Your task to perform on an android device: stop showing notifications on the lock screen Image 0: 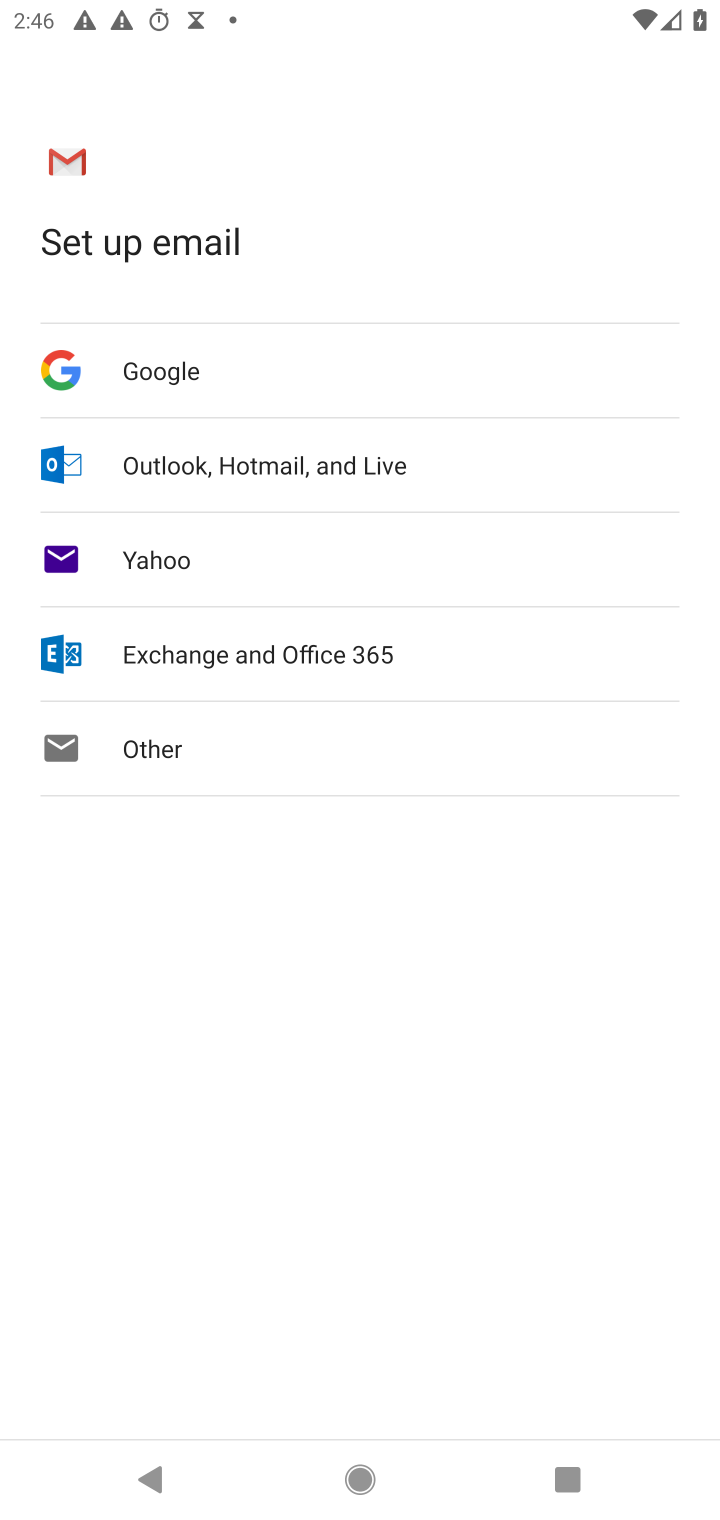
Step 0: press home button
Your task to perform on an android device: stop showing notifications on the lock screen Image 1: 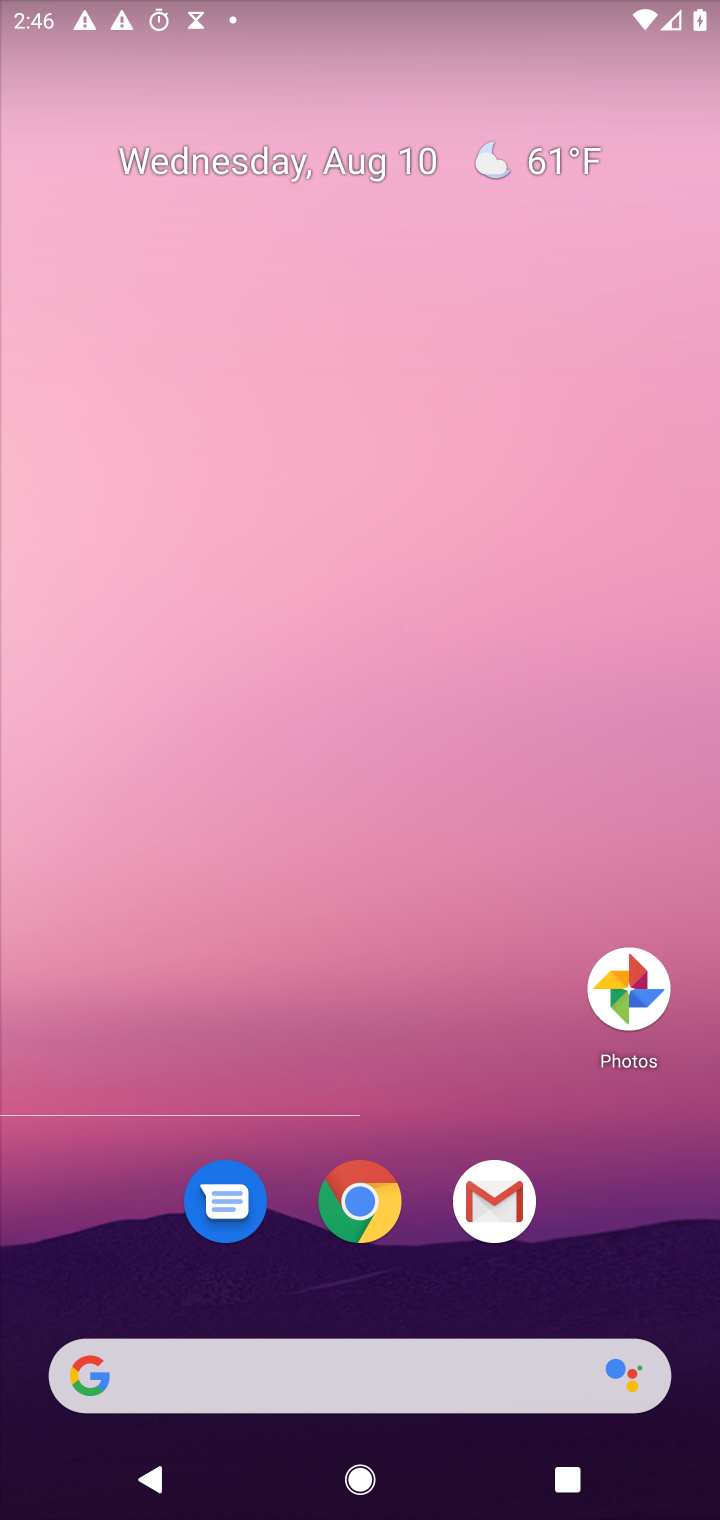
Step 1: drag from (418, 1190) to (515, 459)
Your task to perform on an android device: stop showing notifications on the lock screen Image 2: 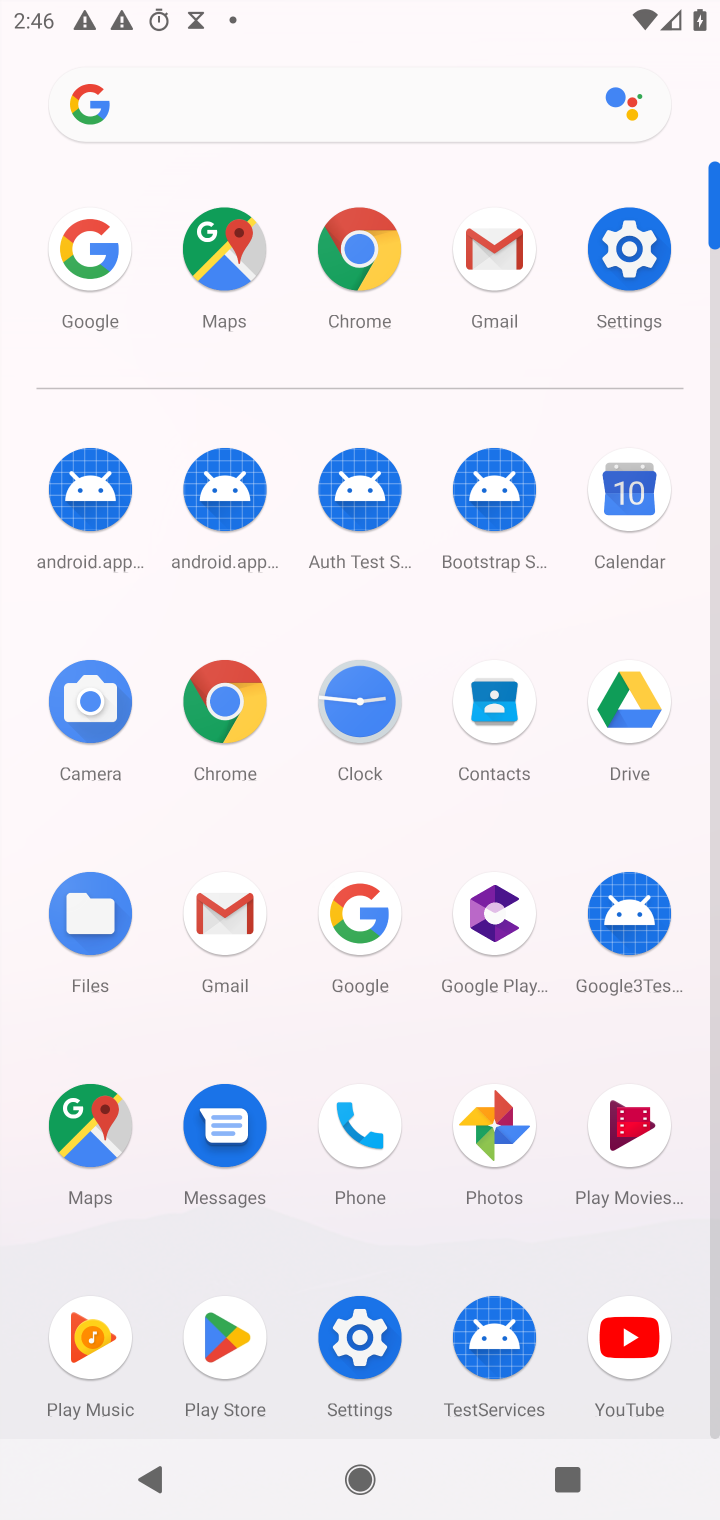
Step 2: click (631, 248)
Your task to perform on an android device: stop showing notifications on the lock screen Image 3: 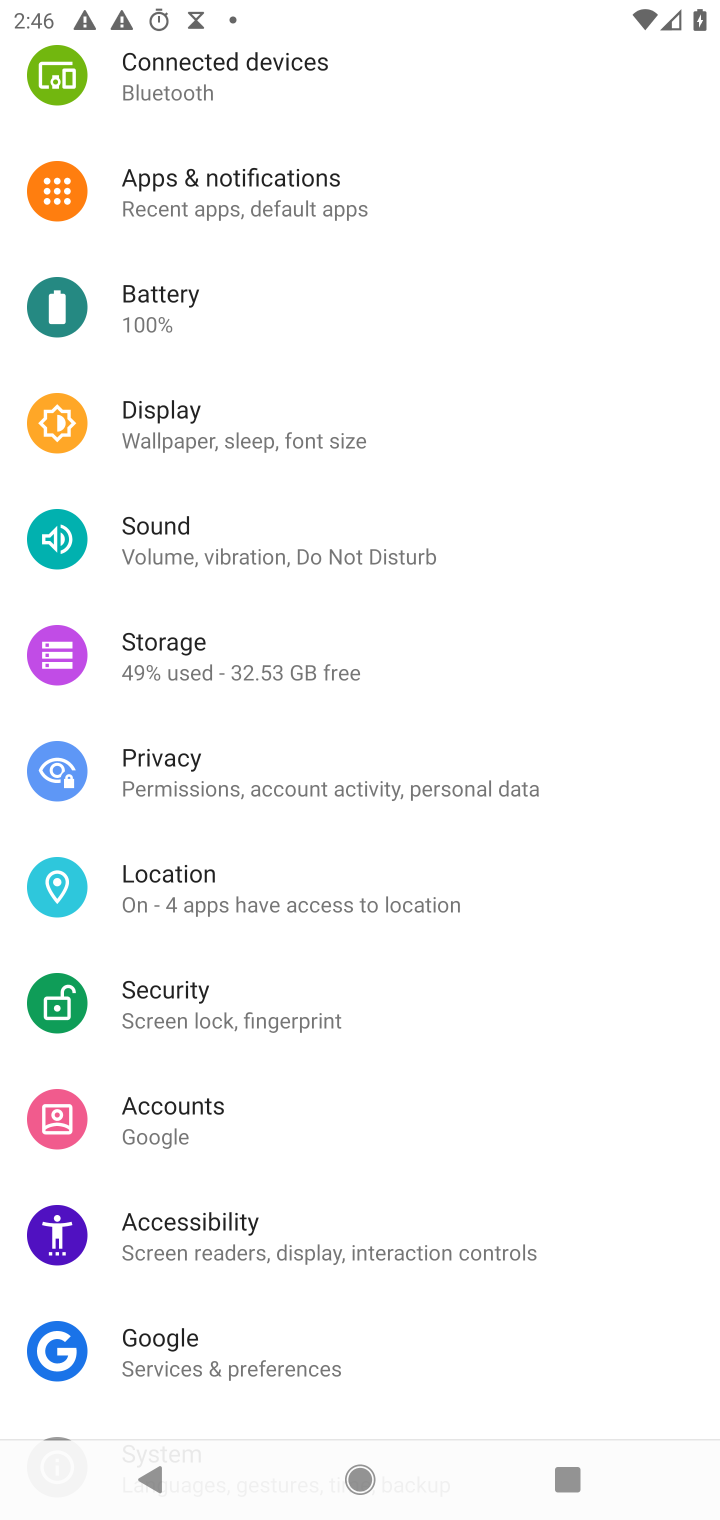
Step 3: click (257, 190)
Your task to perform on an android device: stop showing notifications on the lock screen Image 4: 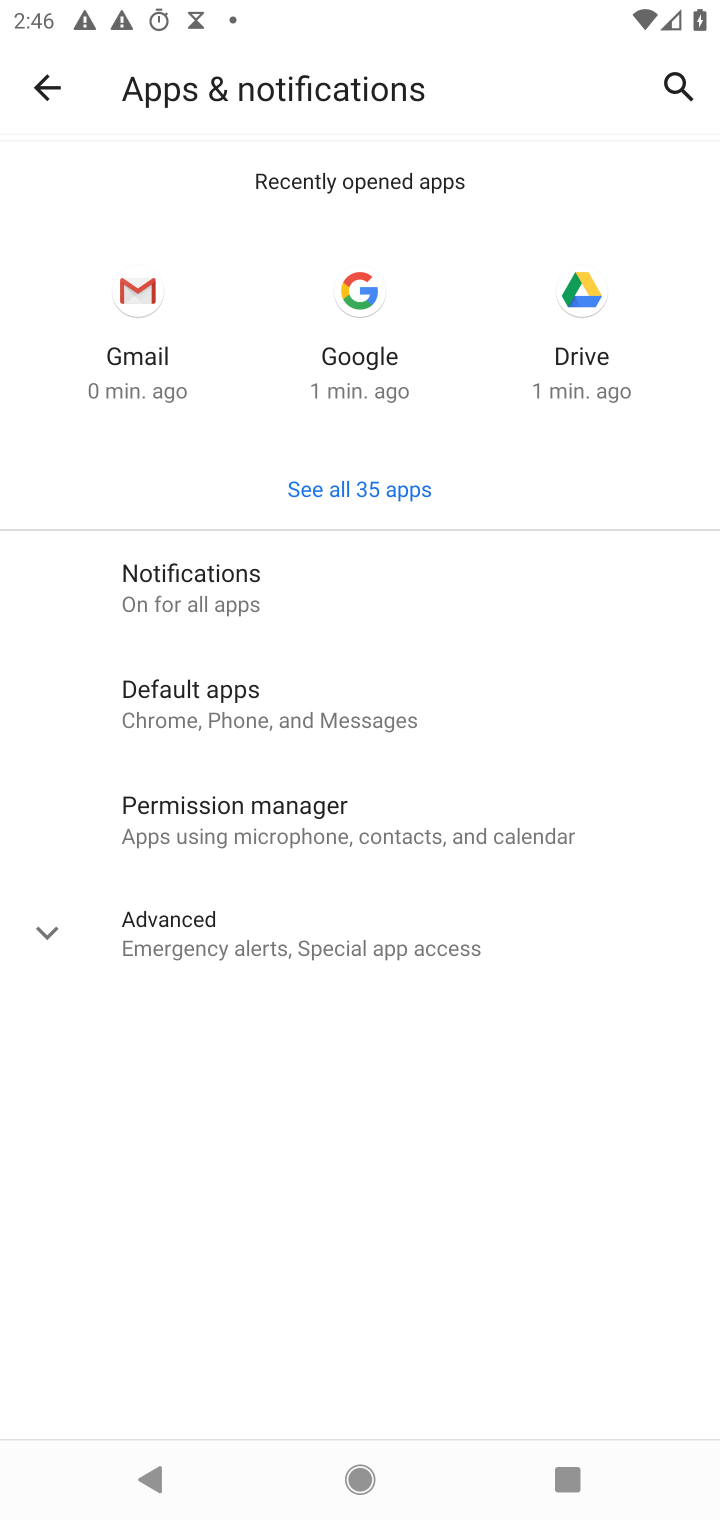
Step 4: click (192, 607)
Your task to perform on an android device: stop showing notifications on the lock screen Image 5: 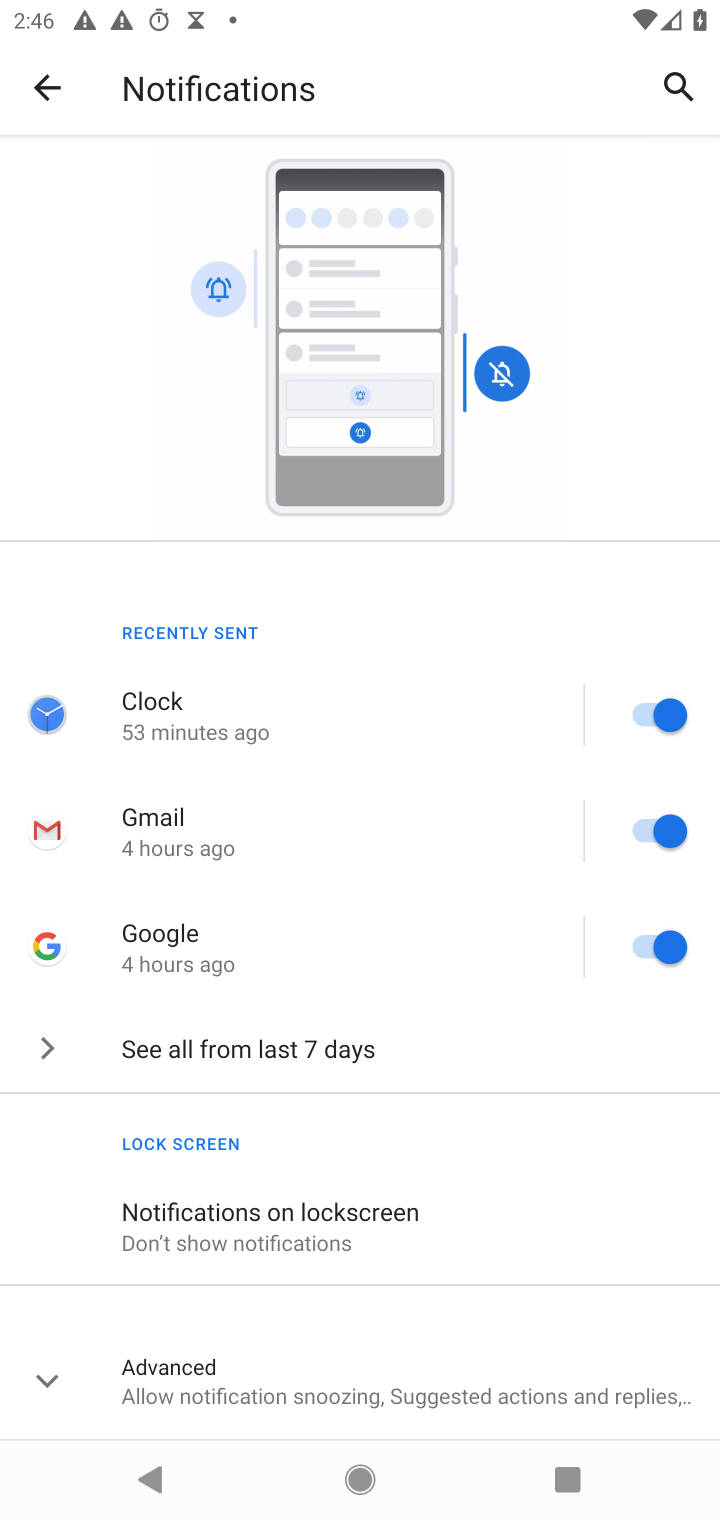
Step 5: click (239, 1243)
Your task to perform on an android device: stop showing notifications on the lock screen Image 6: 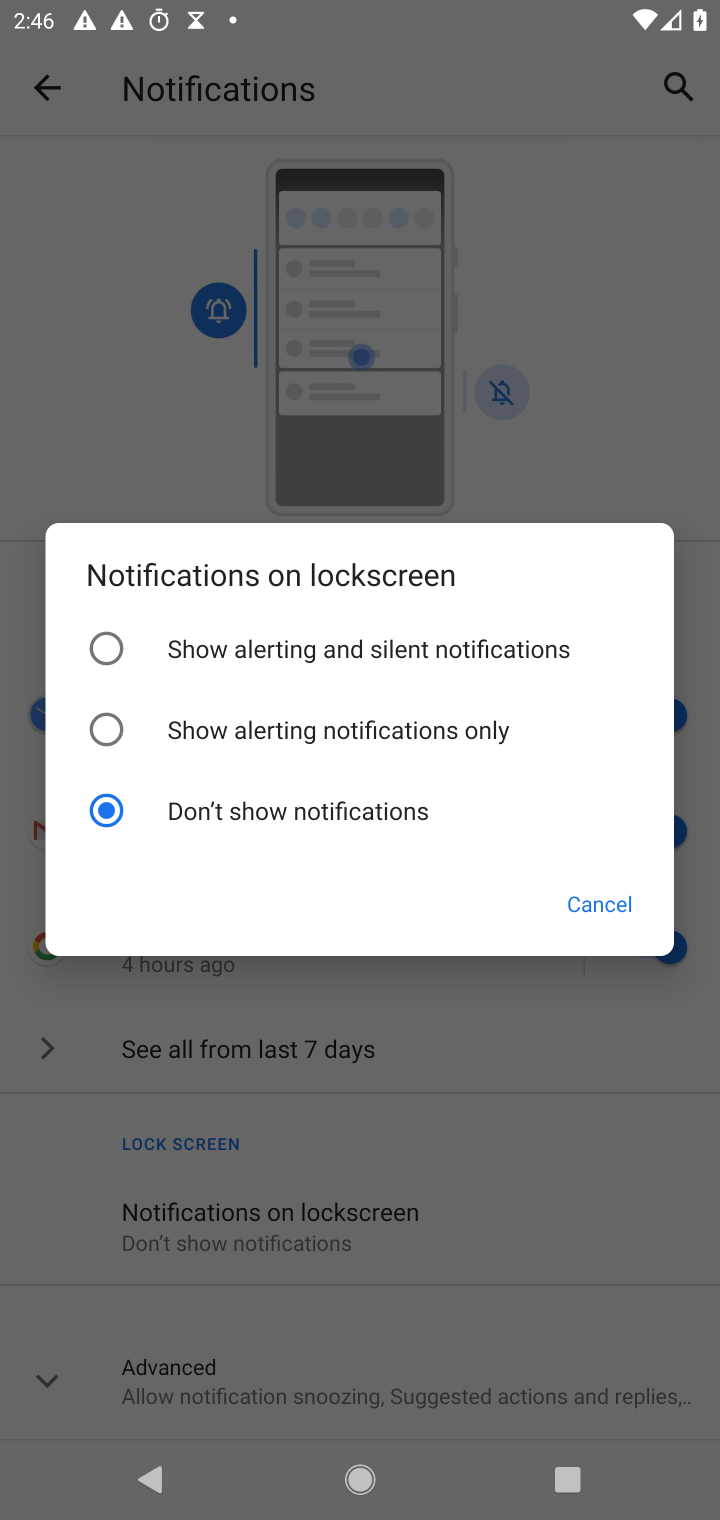
Step 6: task complete